Your task to perform on an android device: allow notifications from all sites in the chrome app Image 0: 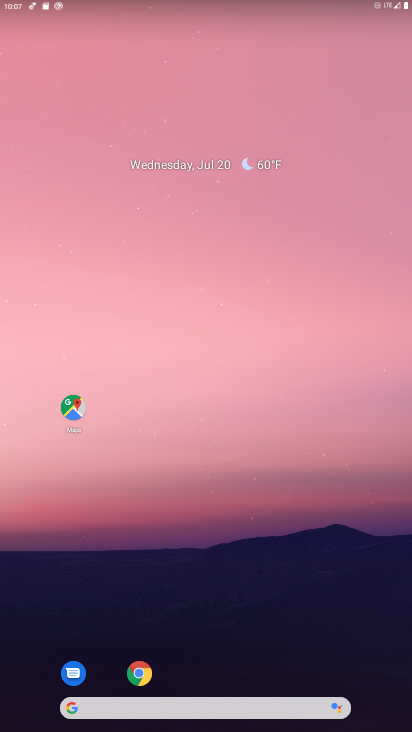
Step 0: click (103, 286)
Your task to perform on an android device: allow notifications from all sites in the chrome app Image 1: 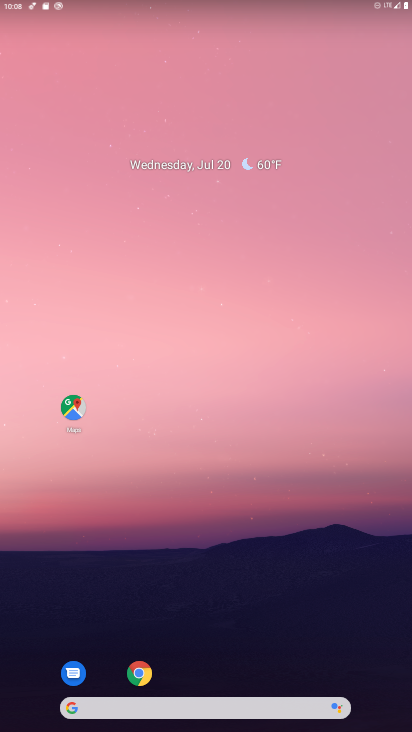
Step 1: click (141, 673)
Your task to perform on an android device: allow notifications from all sites in the chrome app Image 2: 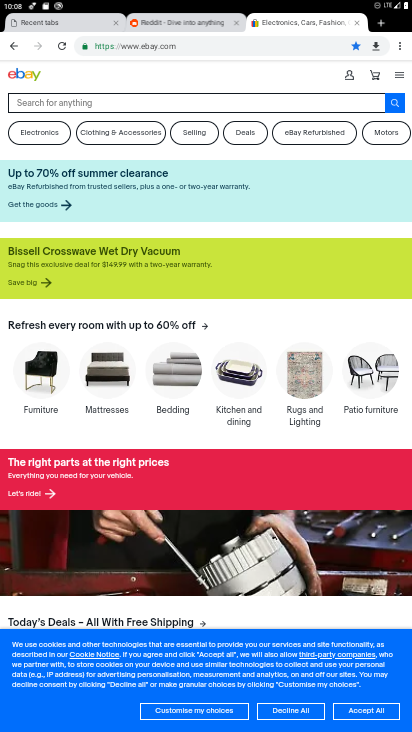
Step 2: click (141, 673)
Your task to perform on an android device: allow notifications from all sites in the chrome app Image 3: 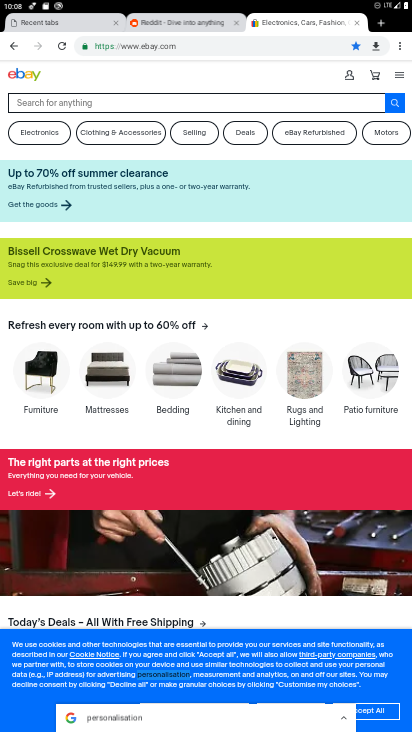
Step 3: click (393, 41)
Your task to perform on an android device: allow notifications from all sites in the chrome app Image 4: 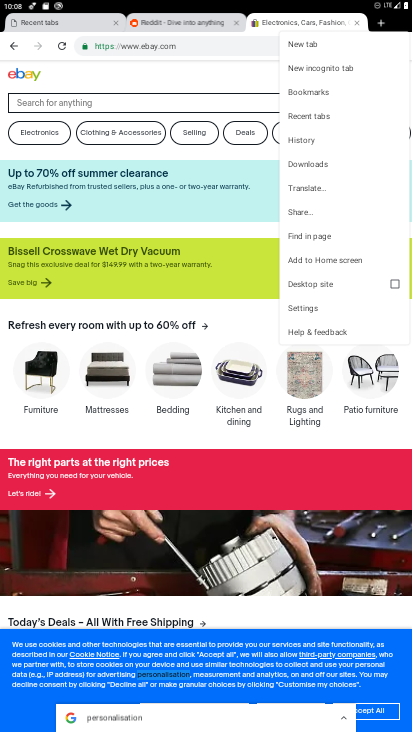
Step 4: click (402, 43)
Your task to perform on an android device: allow notifications from all sites in the chrome app Image 5: 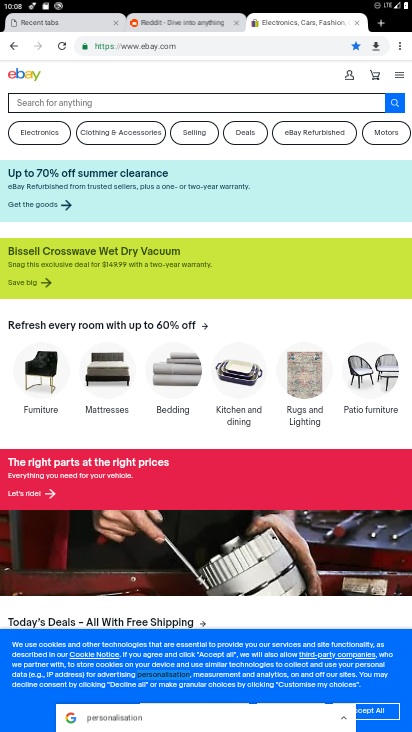
Step 5: click (401, 44)
Your task to perform on an android device: allow notifications from all sites in the chrome app Image 6: 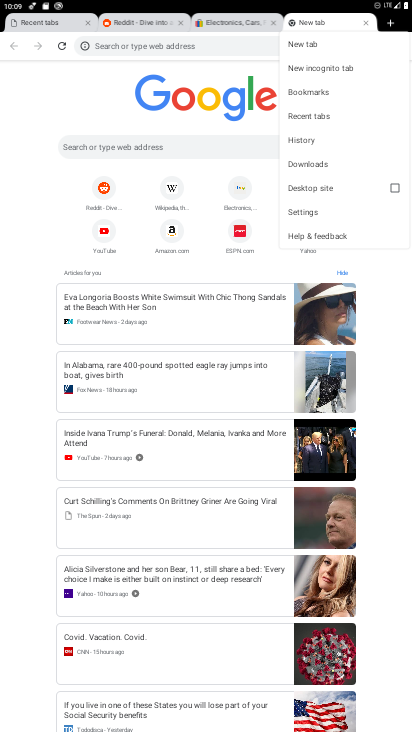
Step 6: click (303, 209)
Your task to perform on an android device: allow notifications from all sites in the chrome app Image 7: 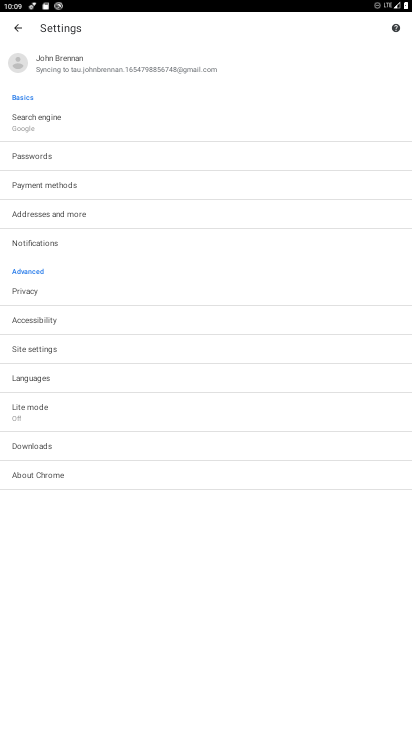
Step 7: click (45, 240)
Your task to perform on an android device: allow notifications from all sites in the chrome app Image 8: 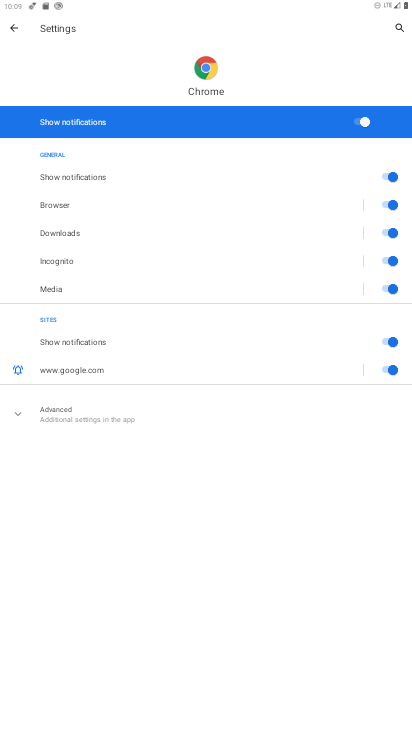
Step 8: task complete